Your task to perform on an android device: Go to ESPN.com Image 0: 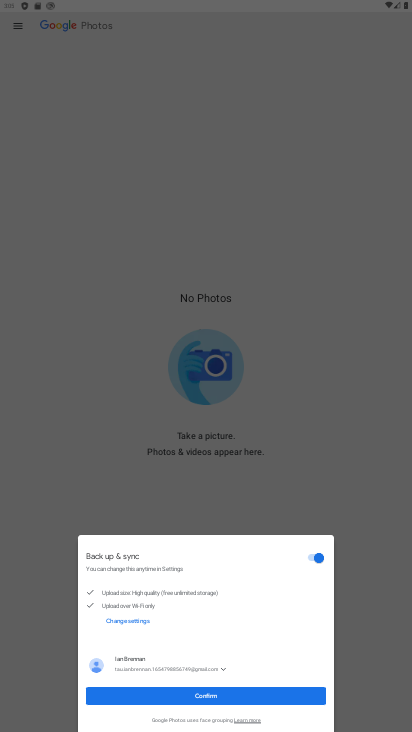
Step 0: press home button
Your task to perform on an android device: Go to ESPN.com Image 1: 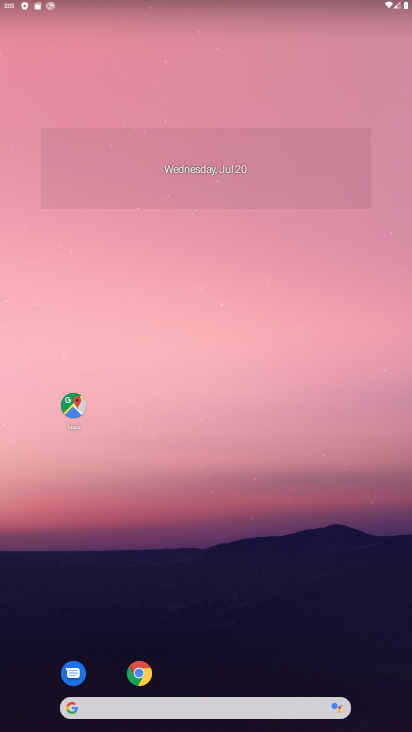
Step 1: click (186, 702)
Your task to perform on an android device: Go to ESPN.com Image 2: 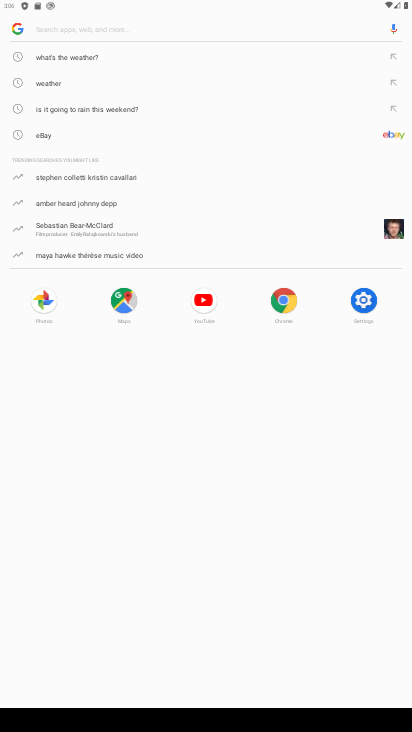
Step 2: type "ESPN.com"
Your task to perform on an android device: Go to ESPN.com Image 3: 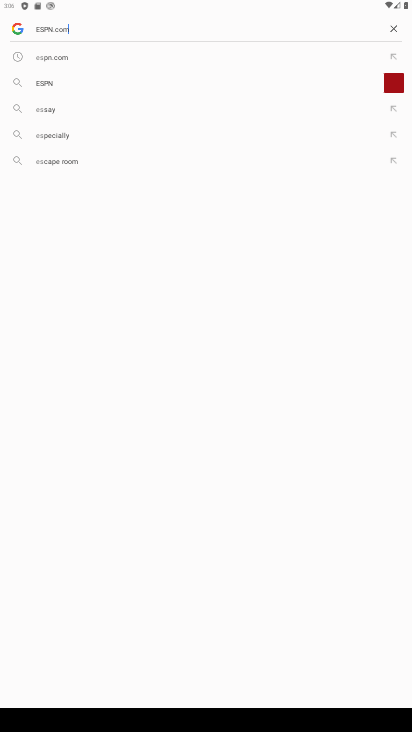
Step 3: type ""
Your task to perform on an android device: Go to ESPN.com Image 4: 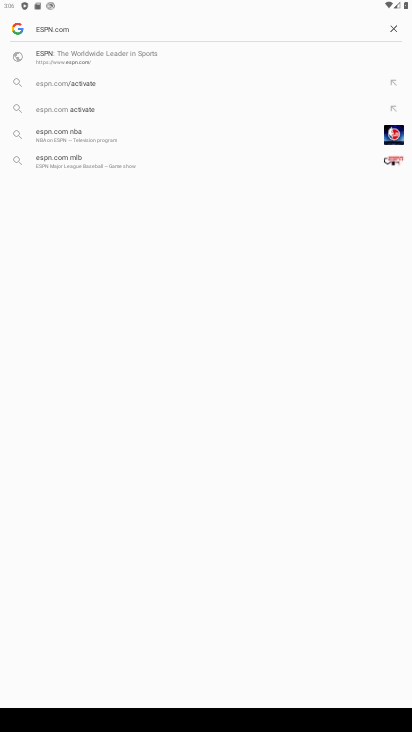
Step 4: task complete